Your task to perform on an android device: see tabs open on other devices in the chrome app Image 0: 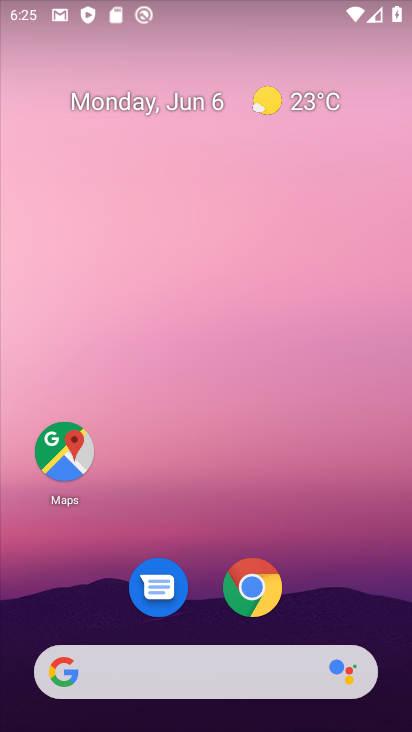
Step 0: drag from (410, 660) to (276, 41)
Your task to perform on an android device: see tabs open on other devices in the chrome app Image 1: 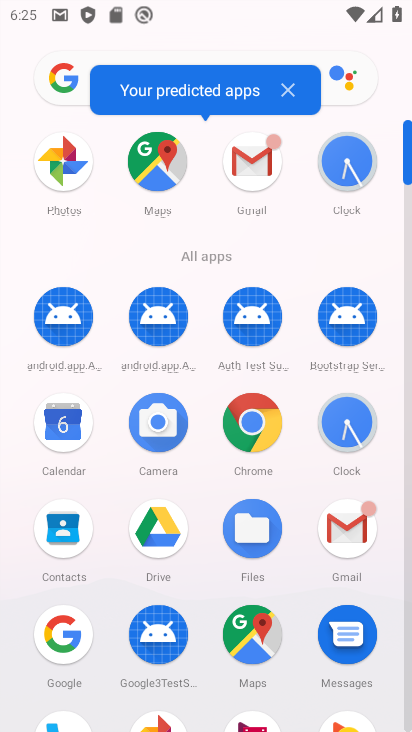
Step 1: click (251, 423)
Your task to perform on an android device: see tabs open on other devices in the chrome app Image 2: 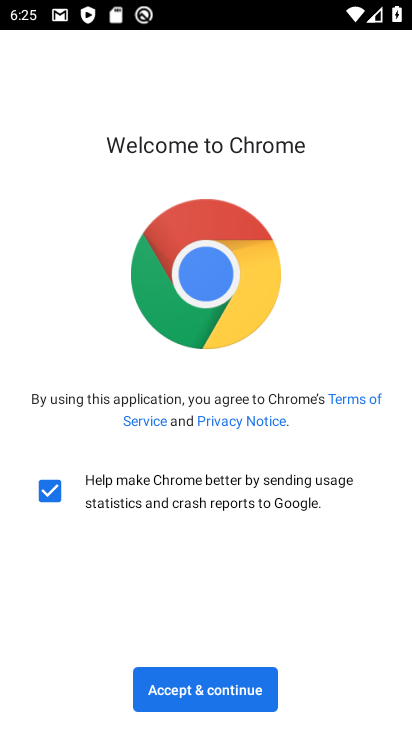
Step 2: click (209, 680)
Your task to perform on an android device: see tabs open on other devices in the chrome app Image 3: 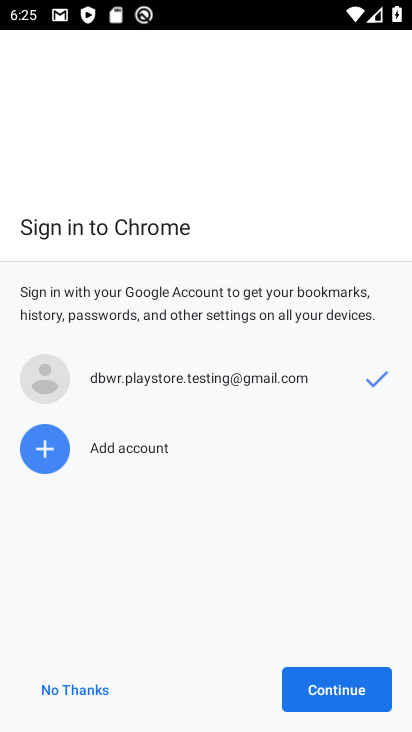
Step 3: click (329, 695)
Your task to perform on an android device: see tabs open on other devices in the chrome app Image 4: 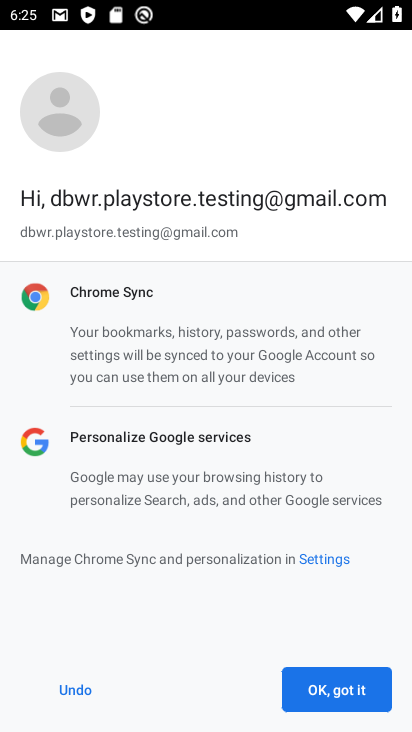
Step 4: click (329, 695)
Your task to perform on an android device: see tabs open on other devices in the chrome app Image 5: 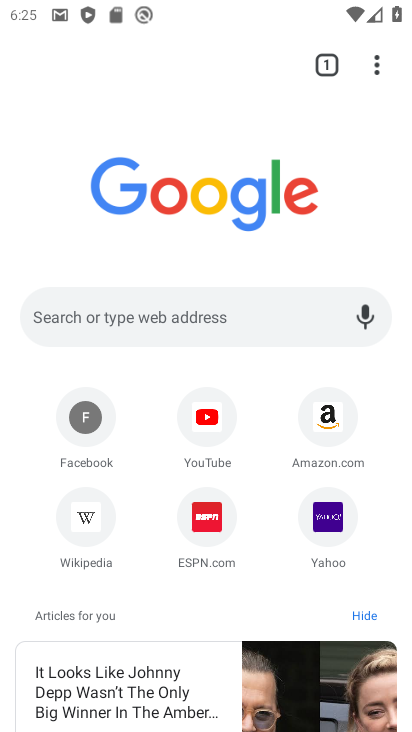
Step 5: task complete